Your task to perform on an android device: Open location settings Image 0: 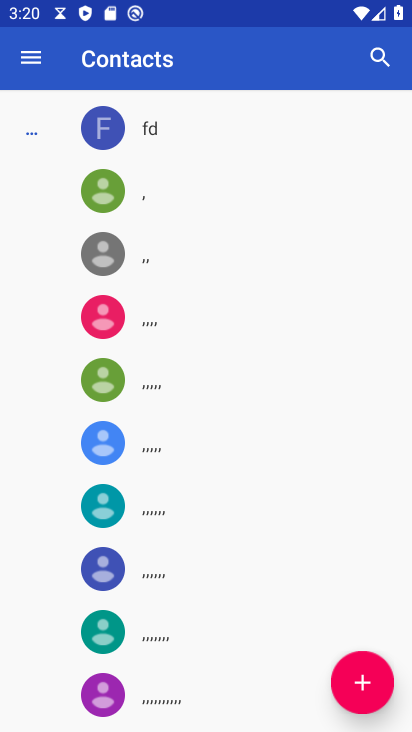
Step 0: press home button
Your task to perform on an android device: Open location settings Image 1: 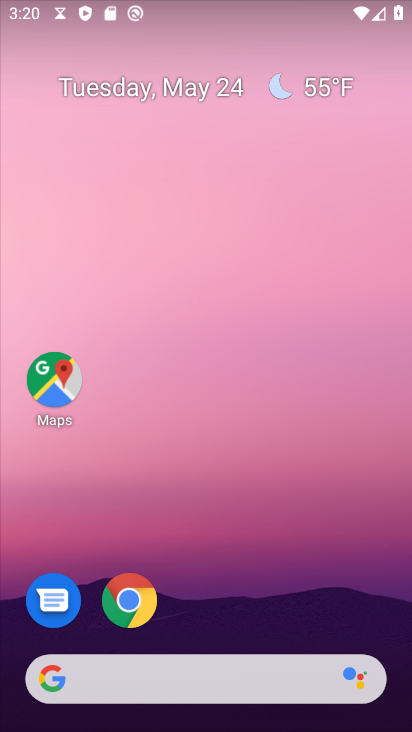
Step 1: drag from (191, 652) to (235, 20)
Your task to perform on an android device: Open location settings Image 2: 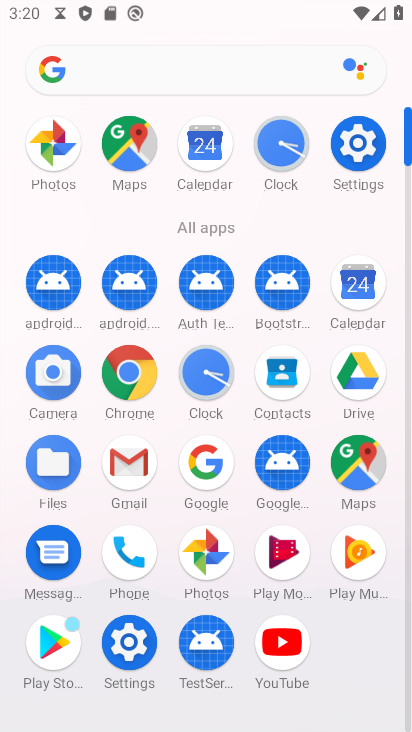
Step 2: click (361, 143)
Your task to perform on an android device: Open location settings Image 3: 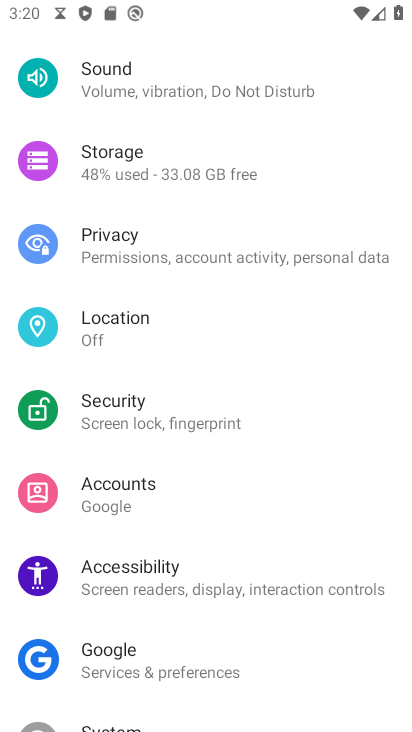
Step 3: click (114, 338)
Your task to perform on an android device: Open location settings Image 4: 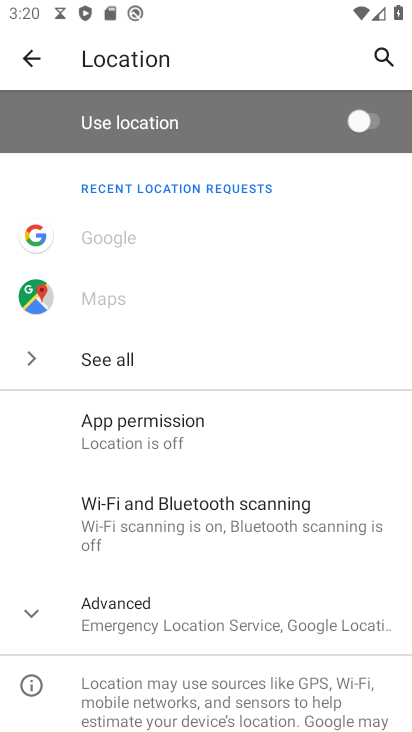
Step 4: task complete